Your task to perform on an android device: Open display settings Image 0: 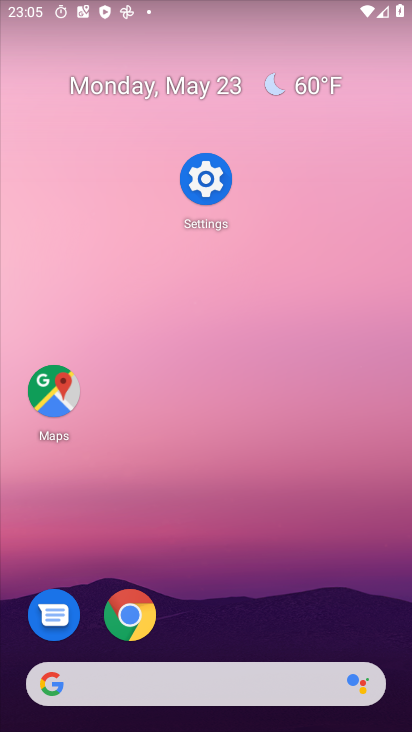
Step 0: drag from (246, 593) to (286, 32)
Your task to perform on an android device: Open display settings Image 1: 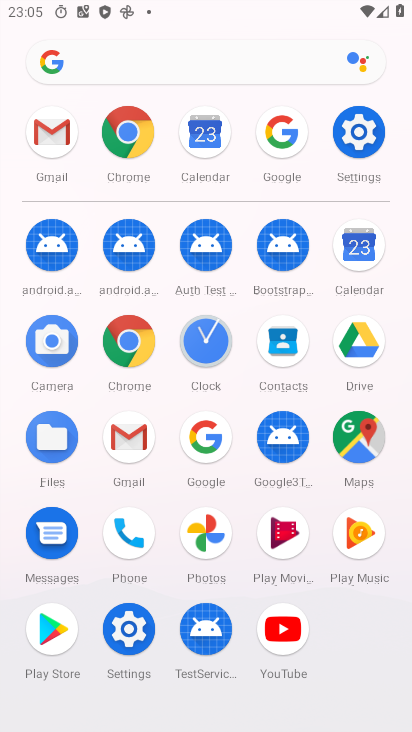
Step 1: click (361, 132)
Your task to perform on an android device: Open display settings Image 2: 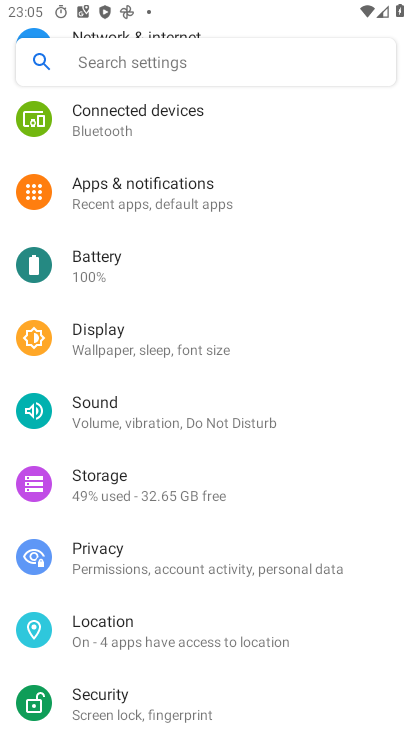
Step 2: click (114, 336)
Your task to perform on an android device: Open display settings Image 3: 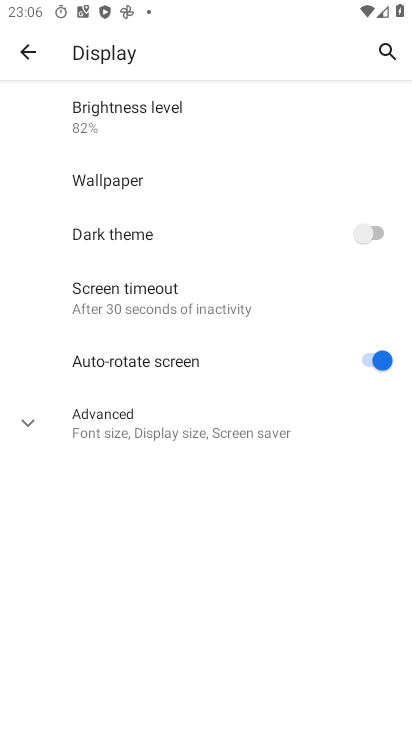
Step 3: task complete